Your task to perform on an android device: change text size in settings app Image 0: 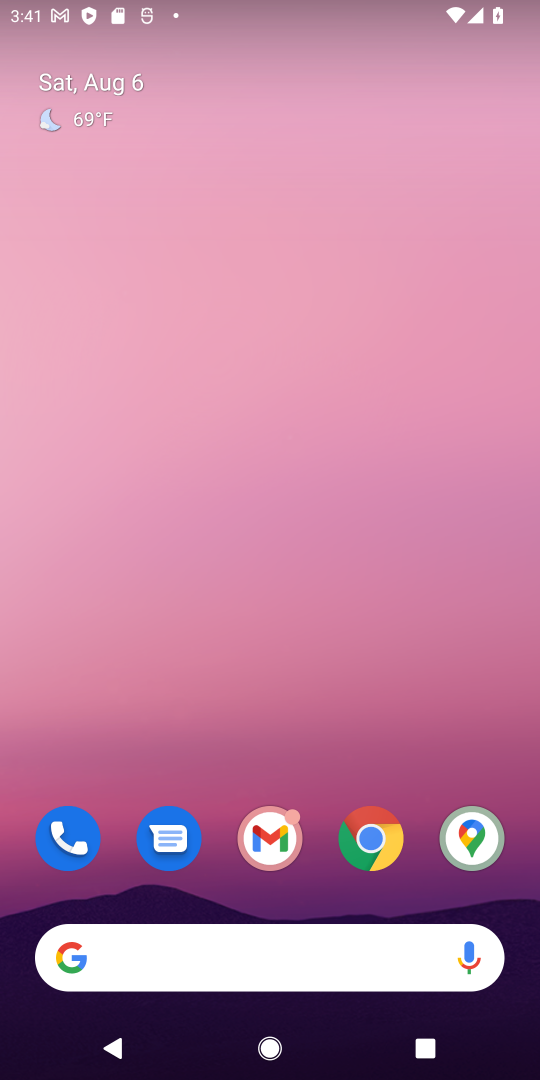
Step 0: drag from (99, 679) to (286, 291)
Your task to perform on an android device: change text size in settings app Image 1: 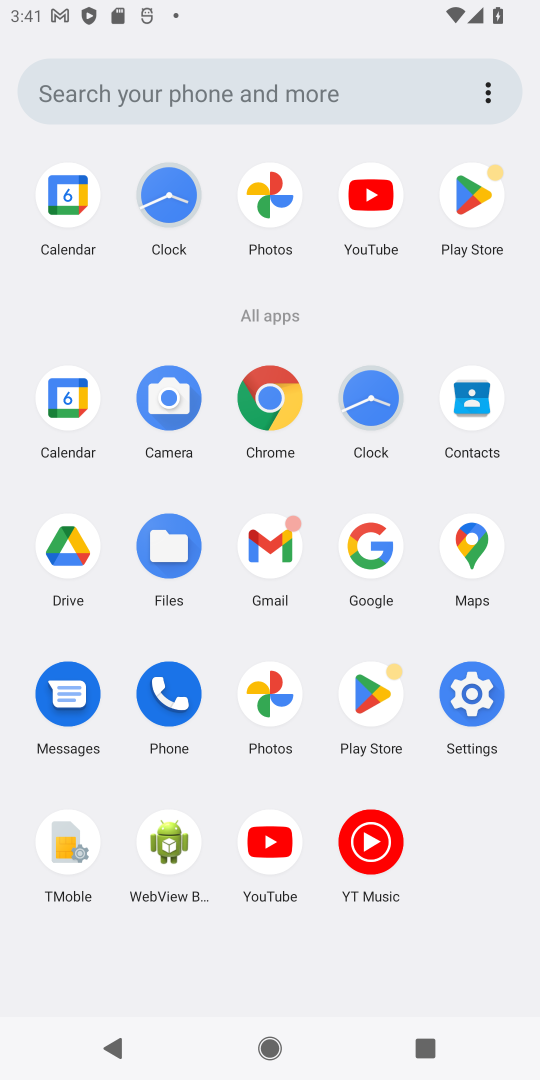
Step 1: click (446, 692)
Your task to perform on an android device: change text size in settings app Image 2: 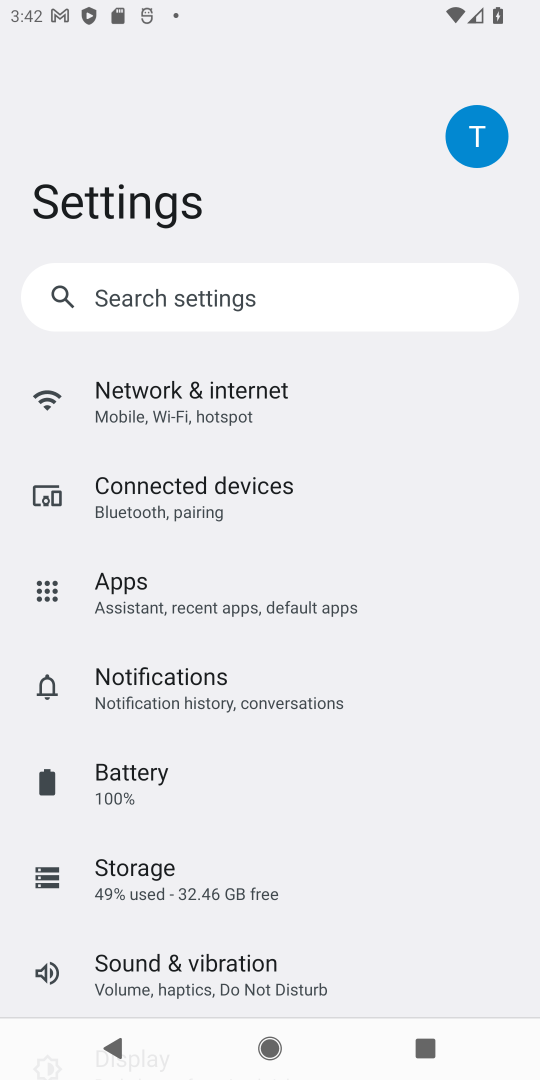
Step 2: drag from (10, 709) to (216, 223)
Your task to perform on an android device: change text size in settings app Image 3: 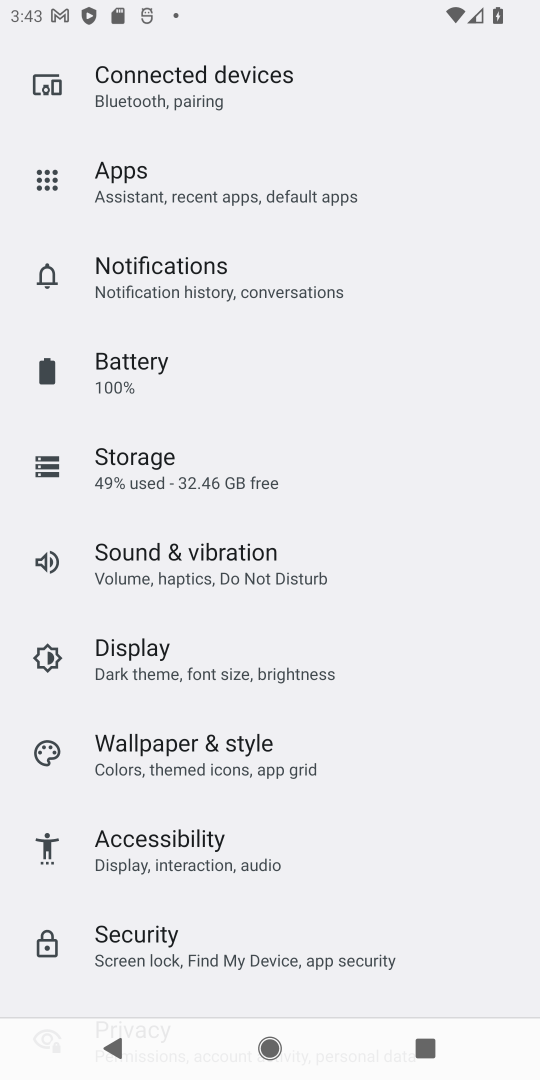
Step 3: click (252, 682)
Your task to perform on an android device: change text size in settings app Image 4: 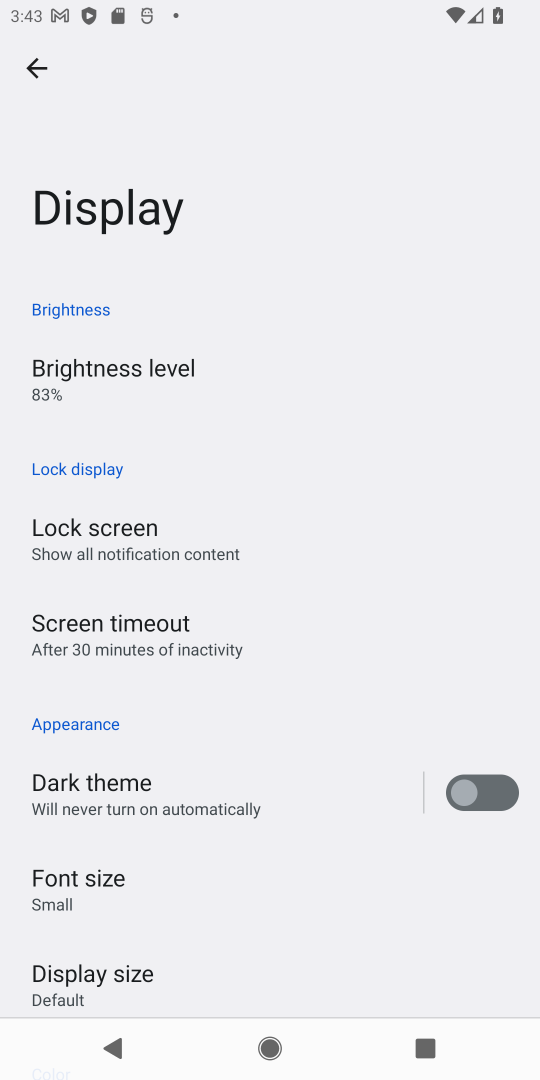
Step 4: click (145, 882)
Your task to perform on an android device: change text size in settings app Image 5: 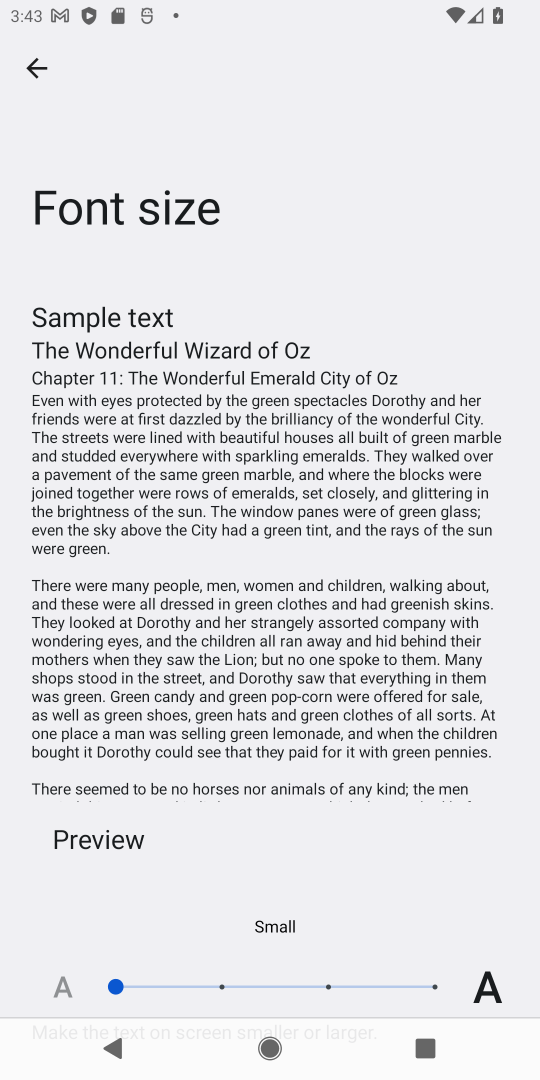
Step 5: click (213, 981)
Your task to perform on an android device: change text size in settings app Image 6: 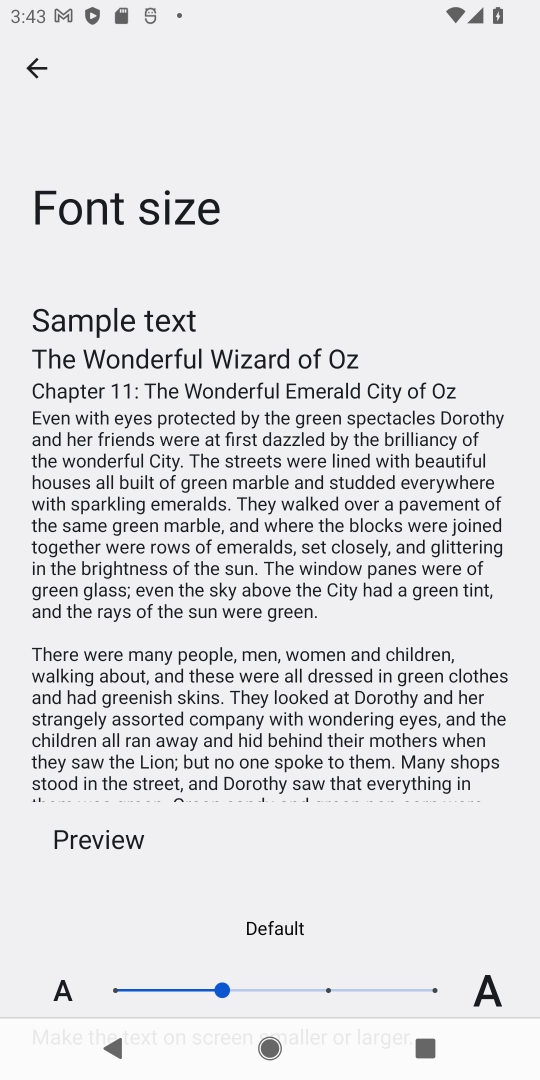
Step 6: task complete